Your task to perform on an android device: refresh tabs in the chrome app Image 0: 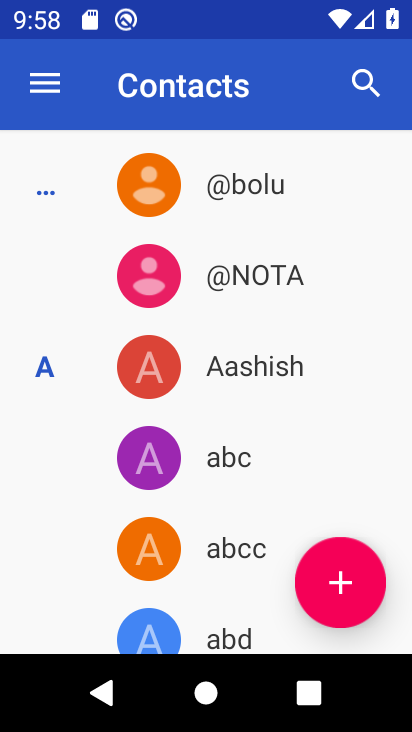
Step 0: press home button
Your task to perform on an android device: refresh tabs in the chrome app Image 1: 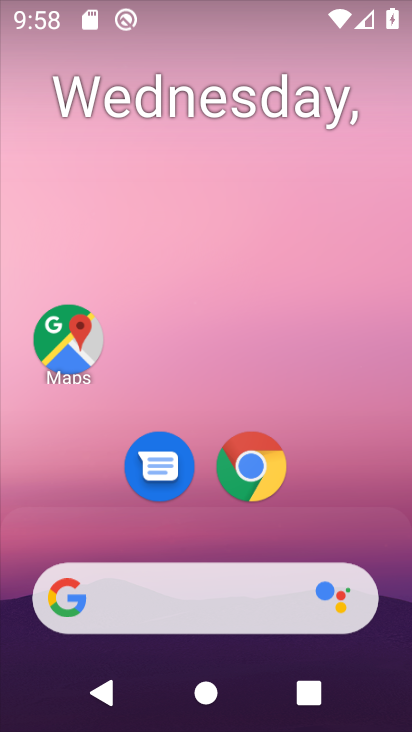
Step 1: click (254, 462)
Your task to perform on an android device: refresh tabs in the chrome app Image 2: 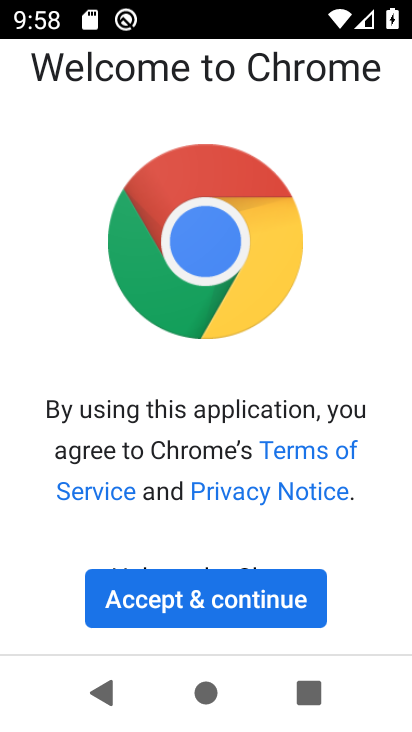
Step 2: click (202, 595)
Your task to perform on an android device: refresh tabs in the chrome app Image 3: 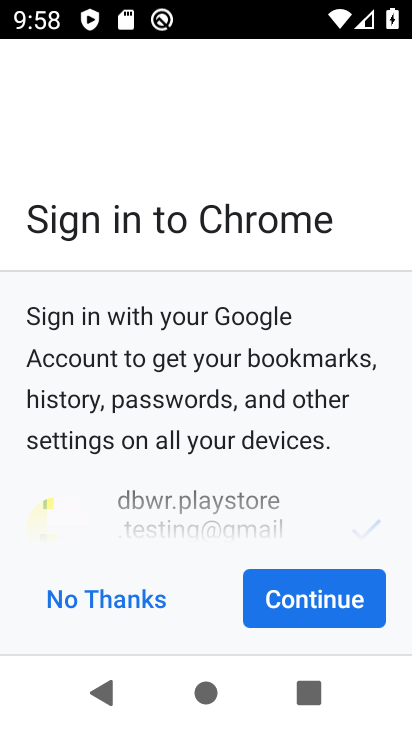
Step 3: click (319, 601)
Your task to perform on an android device: refresh tabs in the chrome app Image 4: 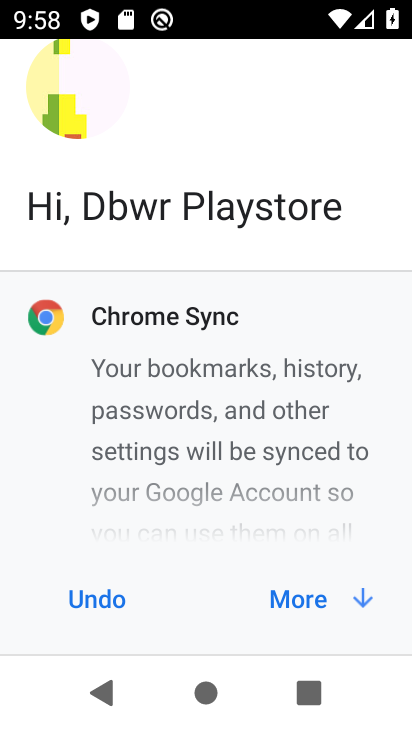
Step 4: click (319, 594)
Your task to perform on an android device: refresh tabs in the chrome app Image 5: 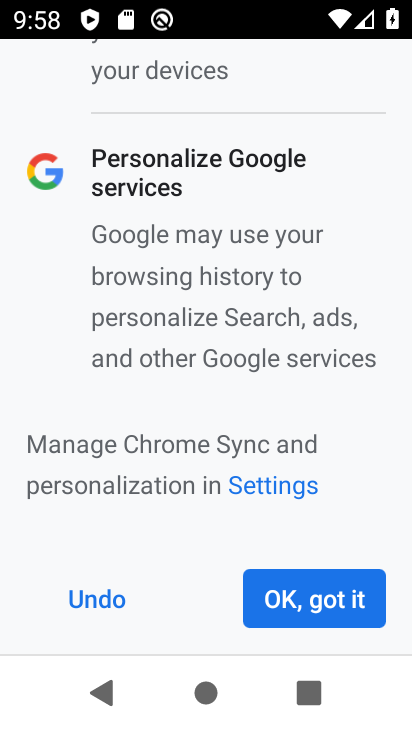
Step 5: click (309, 596)
Your task to perform on an android device: refresh tabs in the chrome app Image 6: 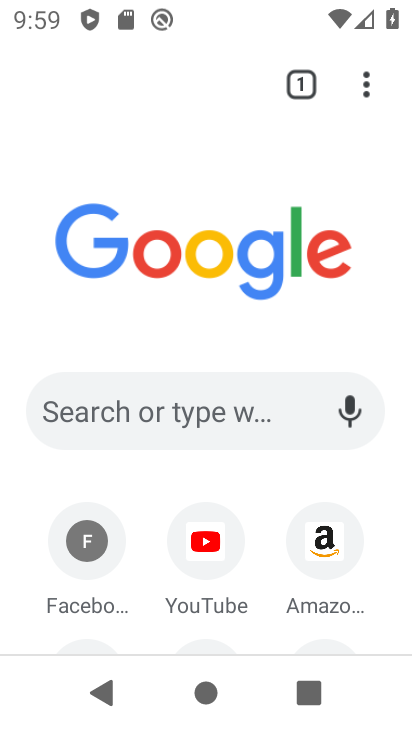
Step 6: click (370, 75)
Your task to perform on an android device: refresh tabs in the chrome app Image 7: 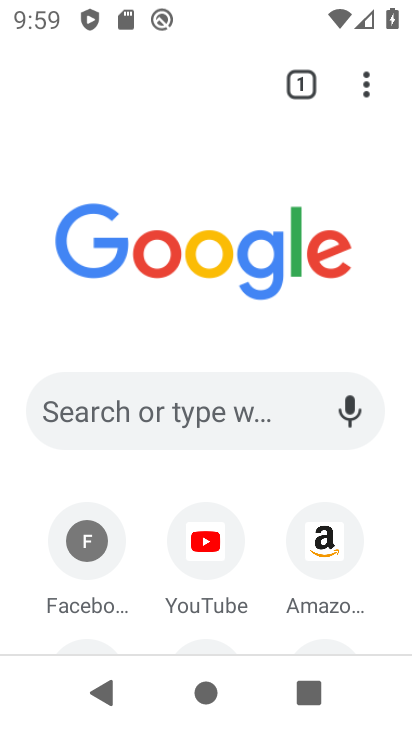
Step 7: click (370, 80)
Your task to perform on an android device: refresh tabs in the chrome app Image 8: 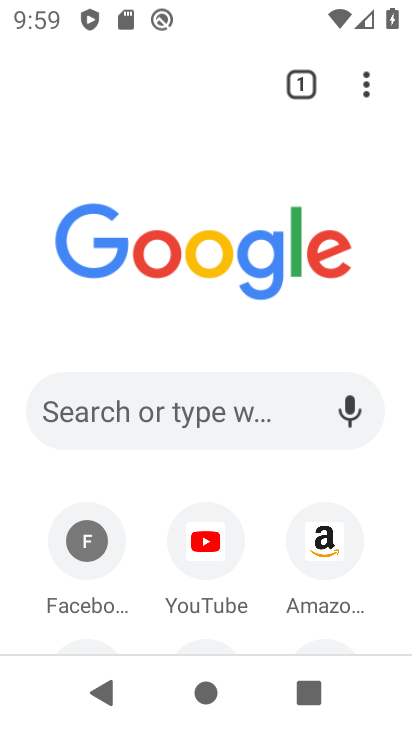
Step 8: task complete